Your task to perform on an android device: Go to battery settings Image 0: 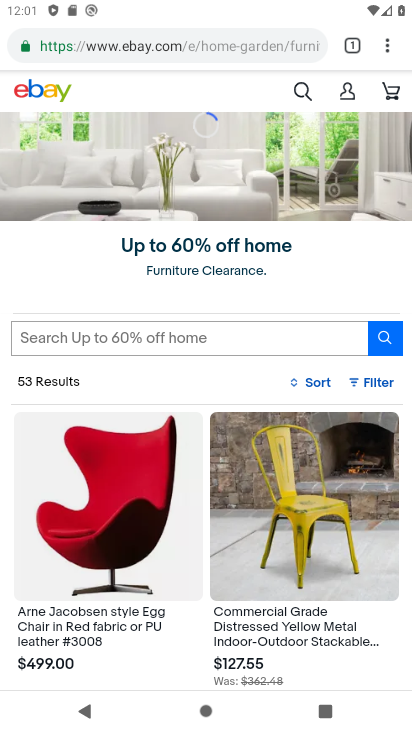
Step 0: press home button
Your task to perform on an android device: Go to battery settings Image 1: 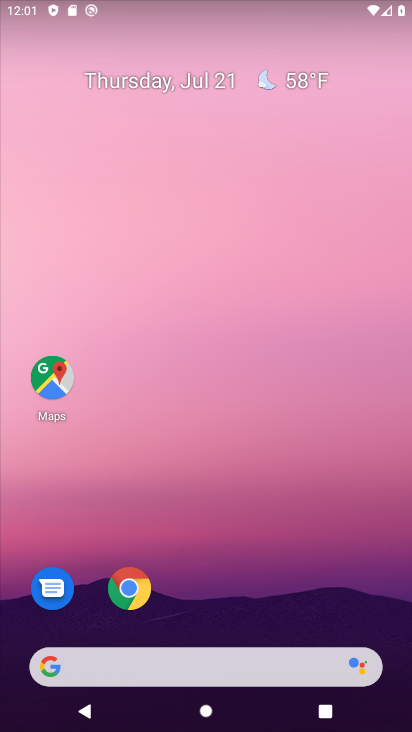
Step 1: drag from (234, 552) to (239, 66)
Your task to perform on an android device: Go to battery settings Image 2: 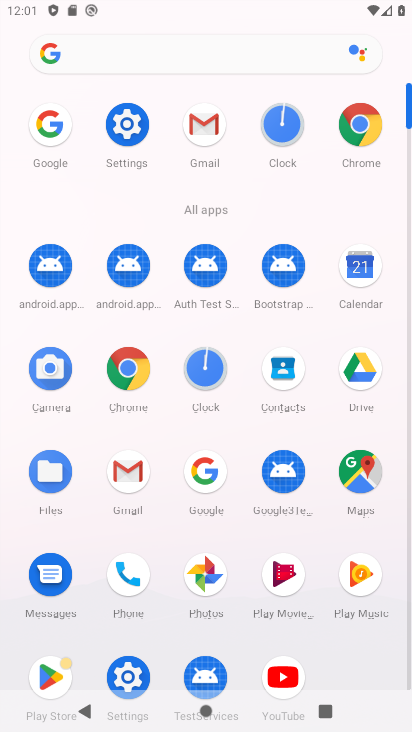
Step 2: click (133, 659)
Your task to perform on an android device: Go to battery settings Image 3: 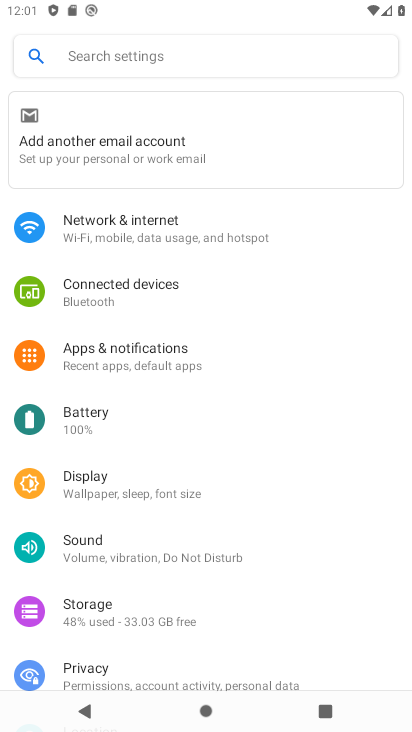
Step 3: click (112, 420)
Your task to perform on an android device: Go to battery settings Image 4: 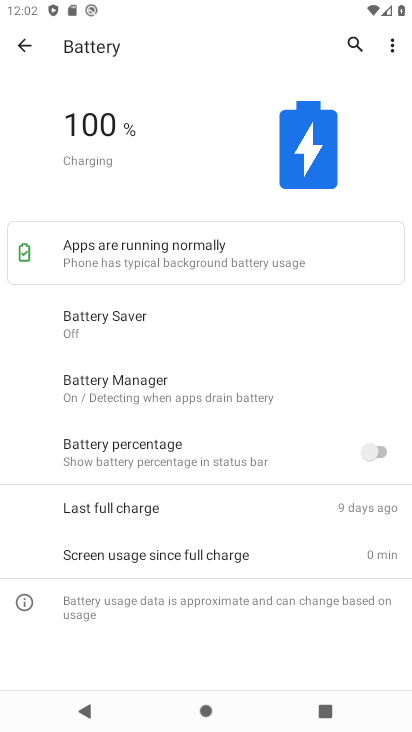
Step 4: task complete